Your task to perform on an android device: turn on improve location accuracy Image 0: 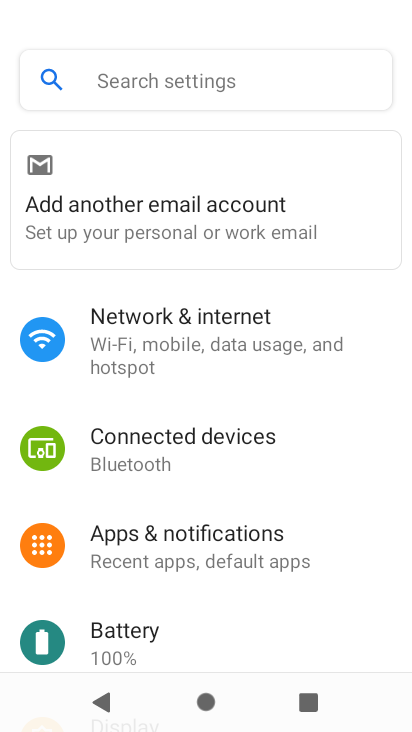
Step 0: drag from (112, 643) to (215, 63)
Your task to perform on an android device: turn on improve location accuracy Image 1: 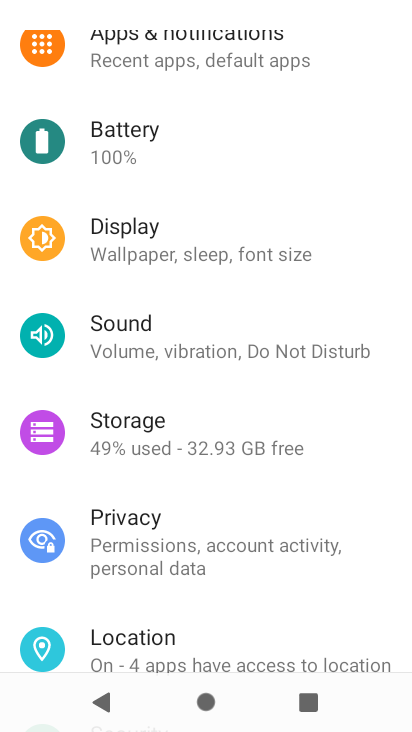
Step 1: click (176, 645)
Your task to perform on an android device: turn on improve location accuracy Image 2: 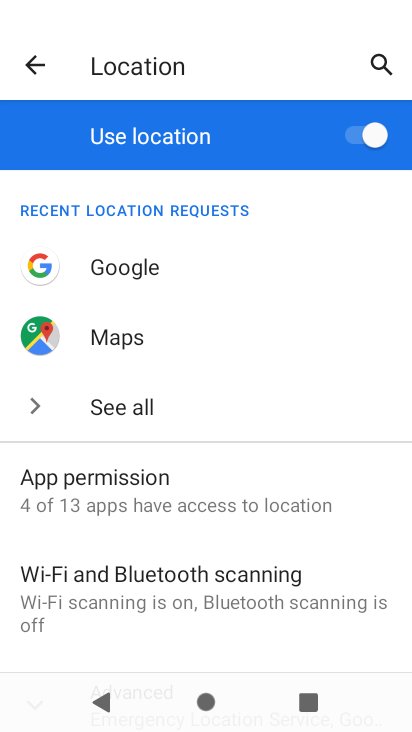
Step 2: drag from (153, 610) to (181, 166)
Your task to perform on an android device: turn on improve location accuracy Image 3: 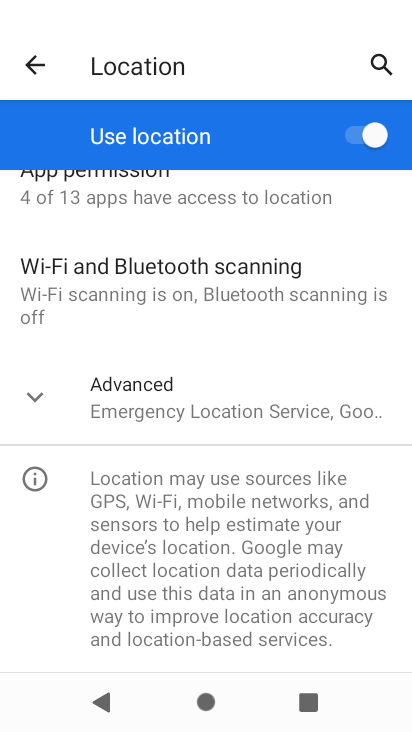
Step 3: click (162, 378)
Your task to perform on an android device: turn on improve location accuracy Image 4: 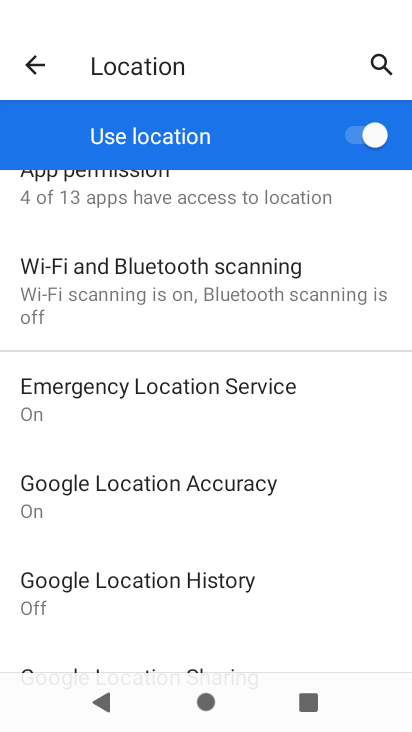
Step 4: click (209, 474)
Your task to perform on an android device: turn on improve location accuracy Image 5: 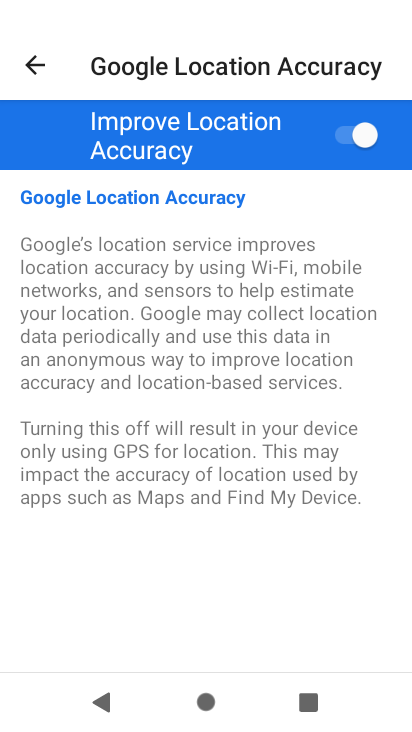
Step 5: task complete